Your task to perform on an android device: turn off notifications settings in the gmail app Image 0: 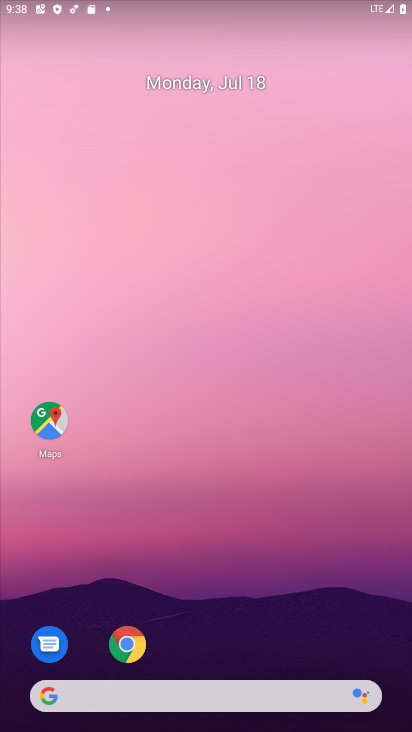
Step 0: drag from (203, 664) to (189, 64)
Your task to perform on an android device: turn off notifications settings in the gmail app Image 1: 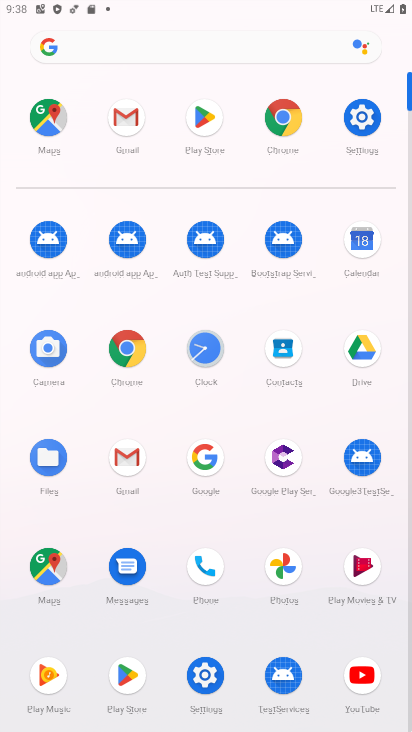
Step 1: click (114, 478)
Your task to perform on an android device: turn off notifications settings in the gmail app Image 2: 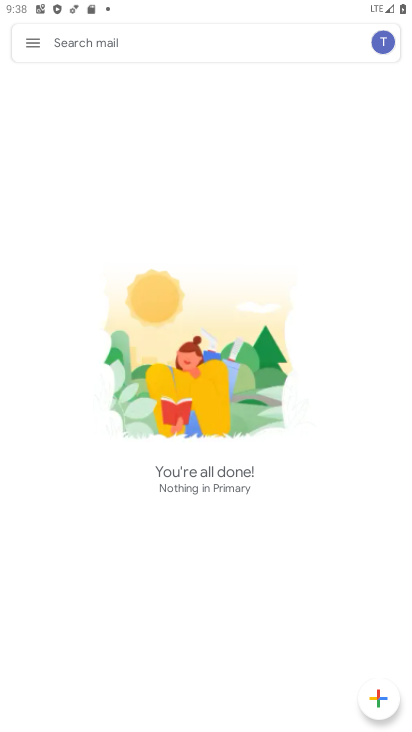
Step 2: click (32, 28)
Your task to perform on an android device: turn off notifications settings in the gmail app Image 3: 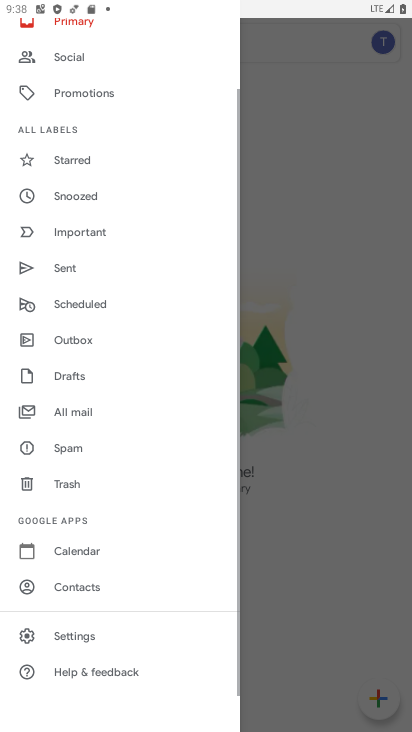
Step 3: click (76, 632)
Your task to perform on an android device: turn off notifications settings in the gmail app Image 4: 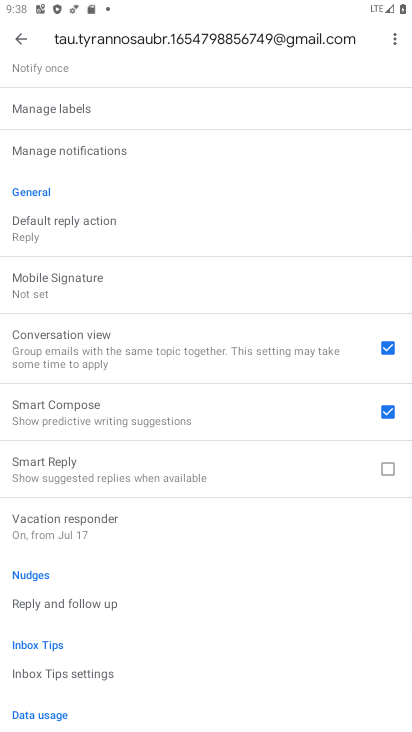
Step 4: drag from (64, 121) to (49, 352)
Your task to perform on an android device: turn off notifications settings in the gmail app Image 5: 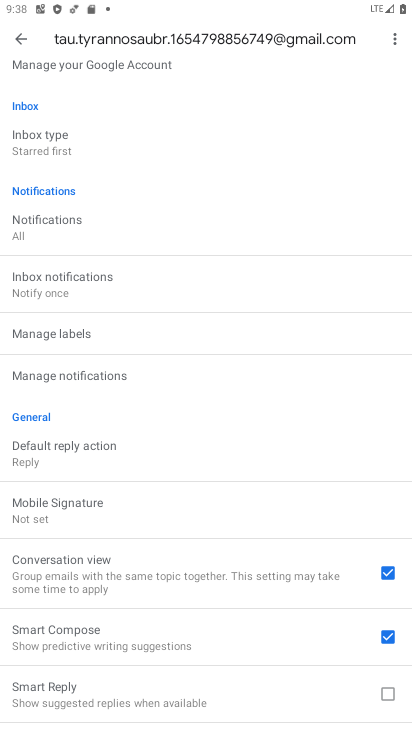
Step 5: click (14, 31)
Your task to perform on an android device: turn off notifications settings in the gmail app Image 6: 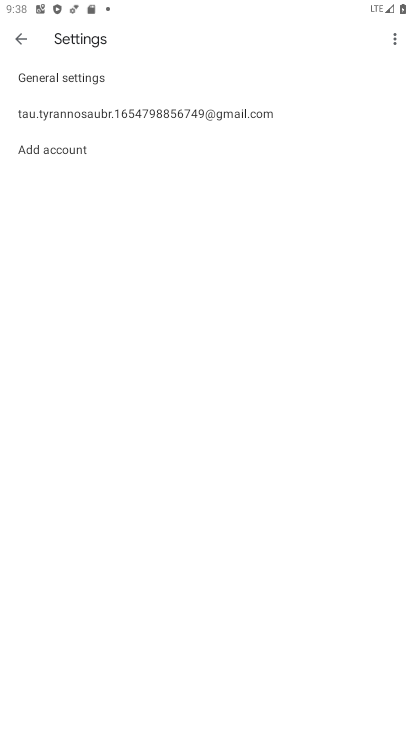
Step 6: click (79, 70)
Your task to perform on an android device: turn off notifications settings in the gmail app Image 7: 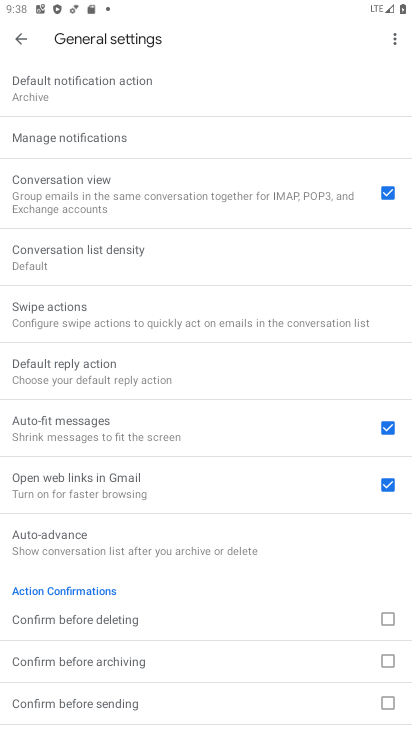
Step 7: click (105, 139)
Your task to perform on an android device: turn off notifications settings in the gmail app Image 8: 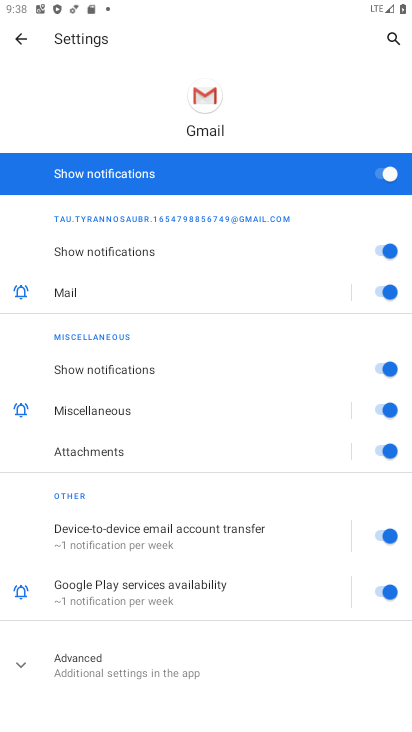
Step 8: click (387, 173)
Your task to perform on an android device: turn off notifications settings in the gmail app Image 9: 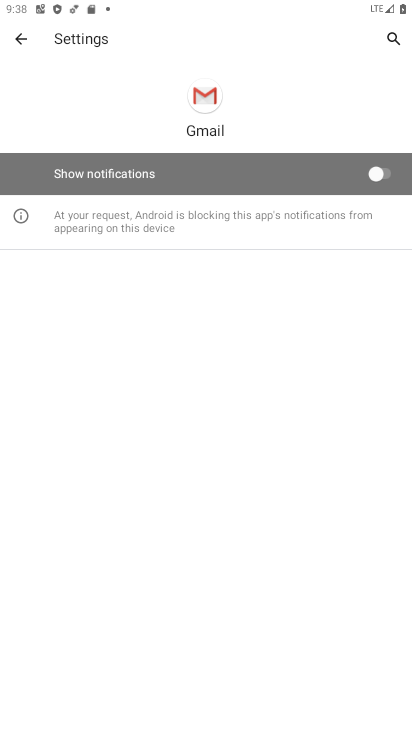
Step 9: task complete